Your task to perform on an android device: Go to battery settings Image 0: 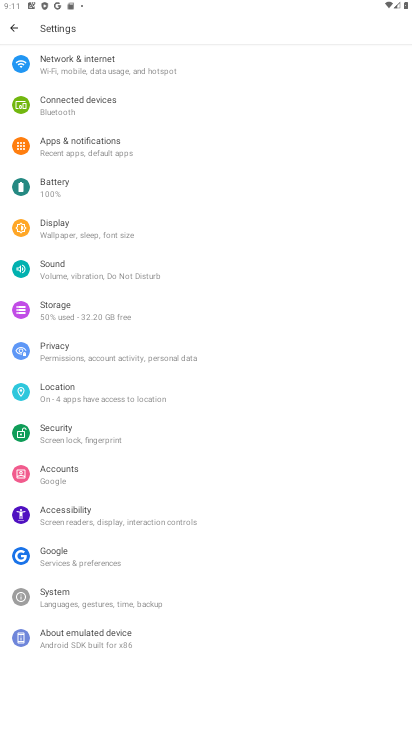
Step 0: click (40, 185)
Your task to perform on an android device: Go to battery settings Image 1: 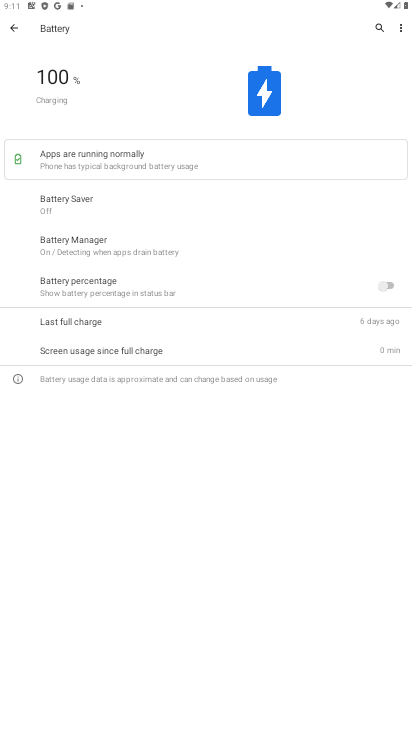
Step 1: task complete